Your task to perform on an android device: search for starred emails in the gmail app Image 0: 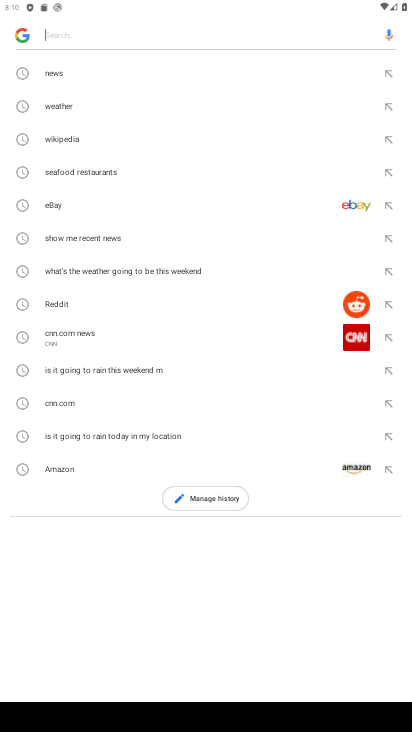
Step 0: task complete